Your task to perform on an android device: Open Google Chrome and click the shortcut for Amazon.com Image 0: 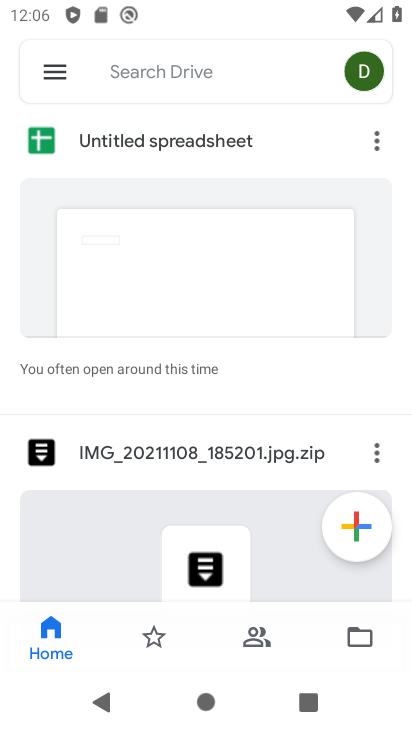
Step 0: press home button
Your task to perform on an android device: Open Google Chrome and click the shortcut for Amazon.com Image 1: 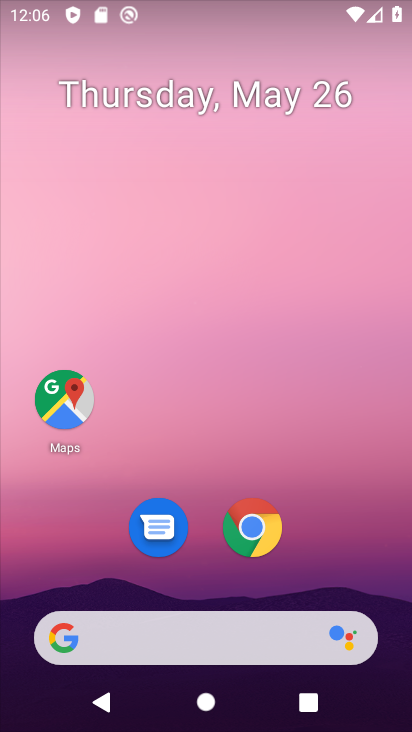
Step 1: click (262, 527)
Your task to perform on an android device: Open Google Chrome and click the shortcut for Amazon.com Image 2: 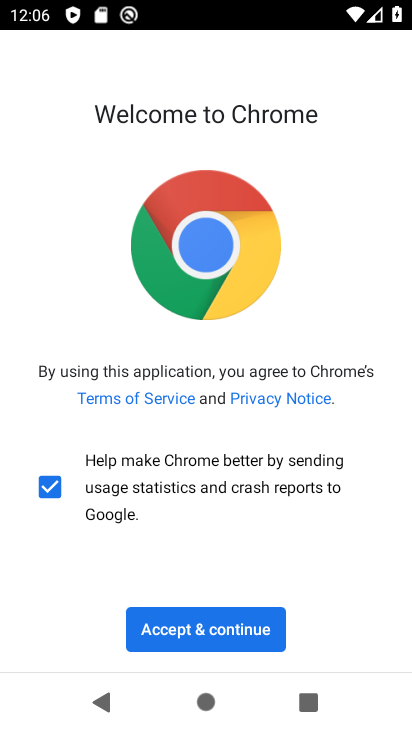
Step 2: click (236, 635)
Your task to perform on an android device: Open Google Chrome and click the shortcut for Amazon.com Image 3: 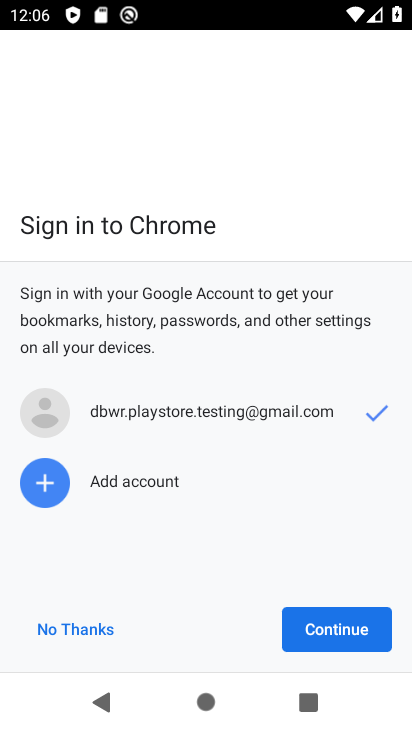
Step 3: click (318, 613)
Your task to perform on an android device: Open Google Chrome and click the shortcut for Amazon.com Image 4: 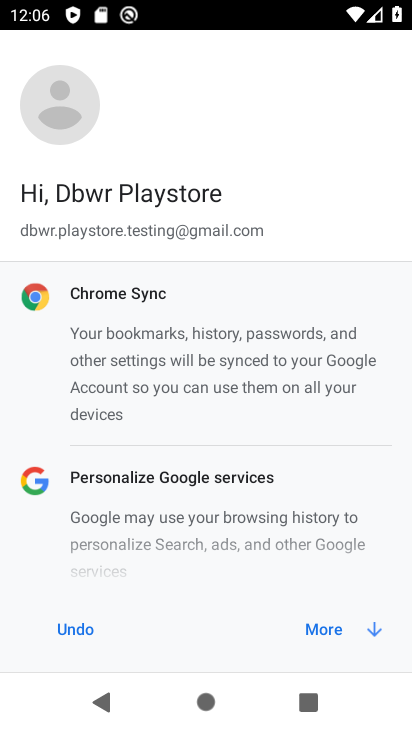
Step 4: click (299, 620)
Your task to perform on an android device: Open Google Chrome and click the shortcut for Amazon.com Image 5: 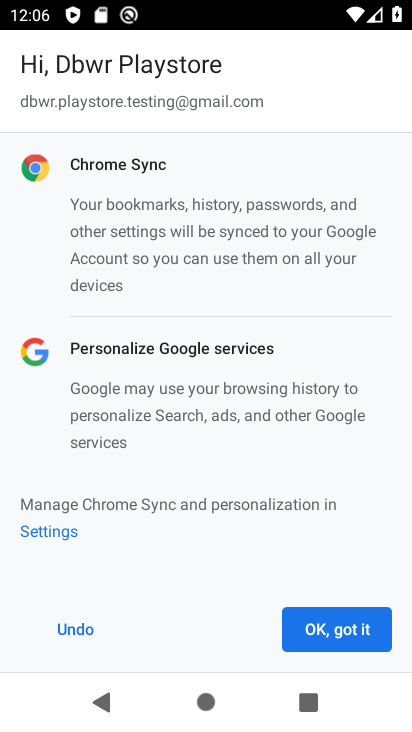
Step 5: click (313, 623)
Your task to perform on an android device: Open Google Chrome and click the shortcut for Amazon.com Image 6: 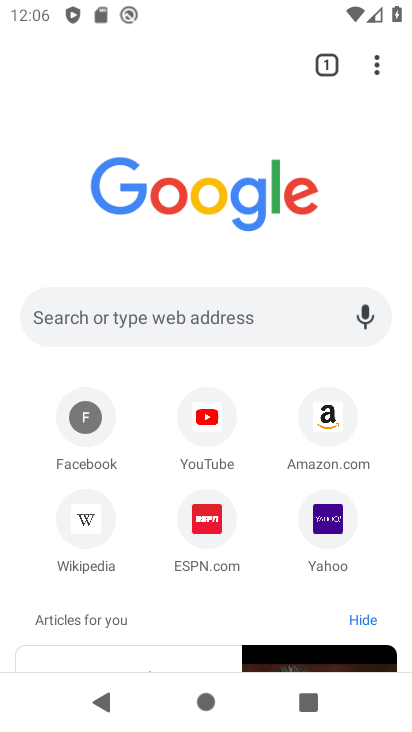
Step 6: click (334, 412)
Your task to perform on an android device: Open Google Chrome and click the shortcut for Amazon.com Image 7: 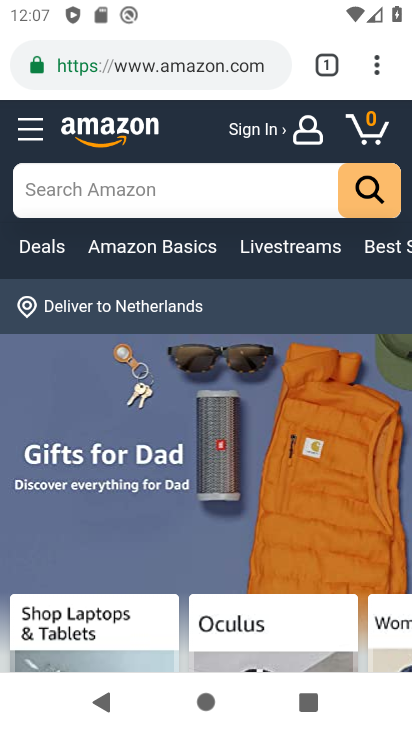
Step 7: task complete